Your task to perform on an android device: find which apps use the phone's location Image 0: 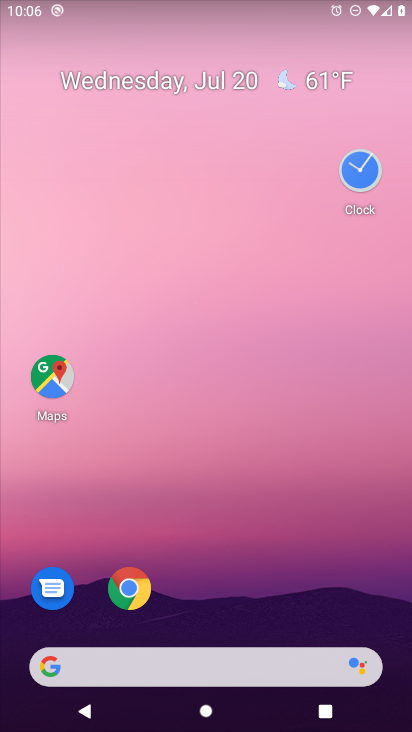
Step 0: drag from (42, 690) to (207, 183)
Your task to perform on an android device: find which apps use the phone's location Image 1: 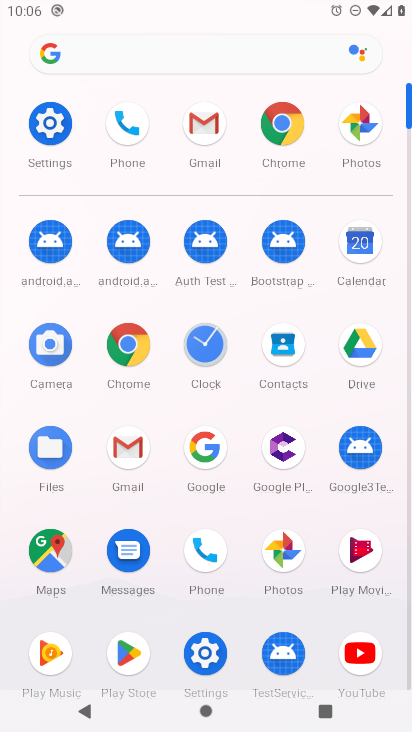
Step 1: click (207, 649)
Your task to perform on an android device: find which apps use the phone's location Image 2: 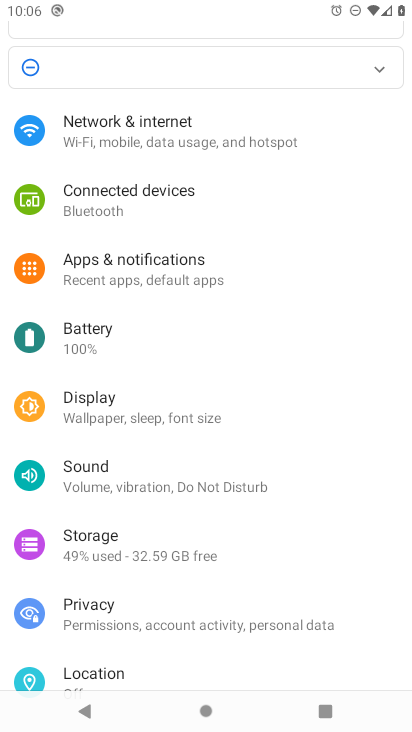
Step 2: click (113, 666)
Your task to perform on an android device: find which apps use the phone's location Image 3: 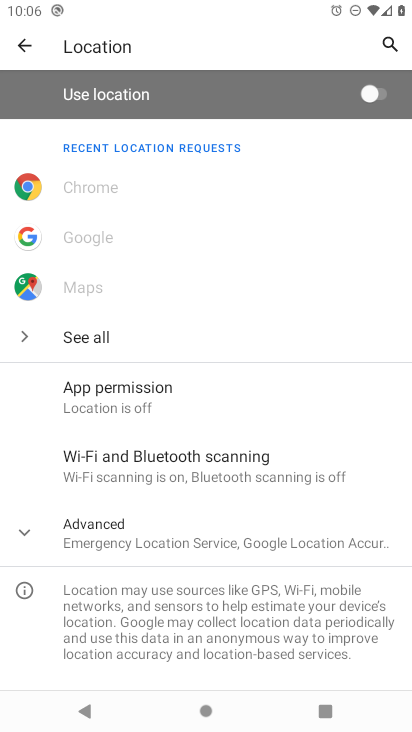
Step 3: click (112, 401)
Your task to perform on an android device: find which apps use the phone's location Image 4: 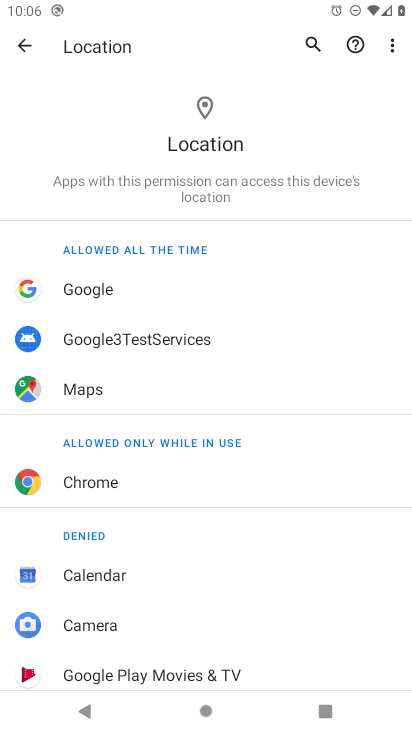
Step 4: task complete